Your task to perform on an android device: turn on airplane mode Image 0: 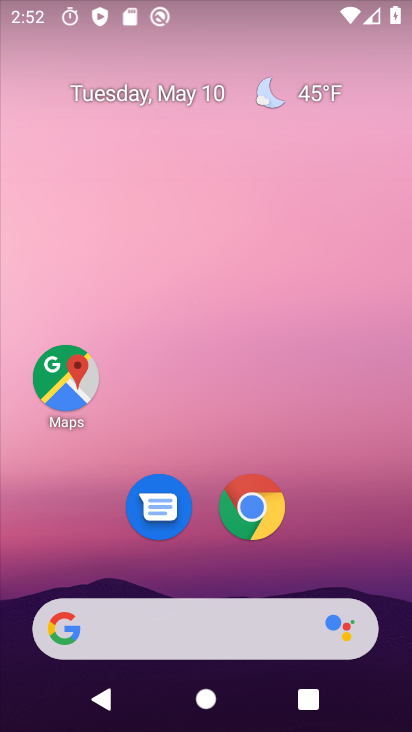
Step 0: drag from (199, 600) to (199, 218)
Your task to perform on an android device: turn on airplane mode Image 1: 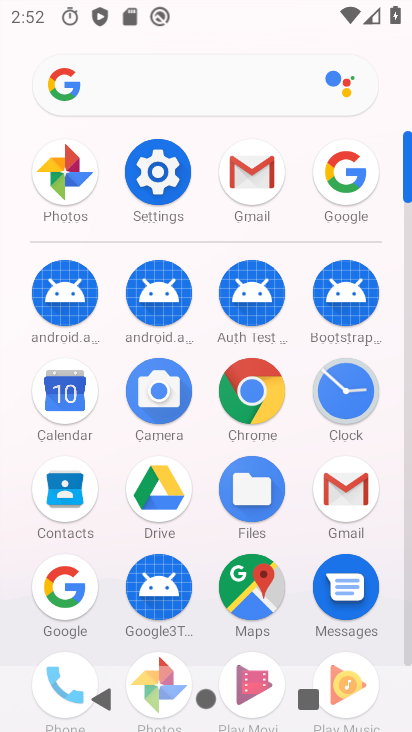
Step 1: click (159, 178)
Your task to perform on an android device: turn on airplane mode Image 2: 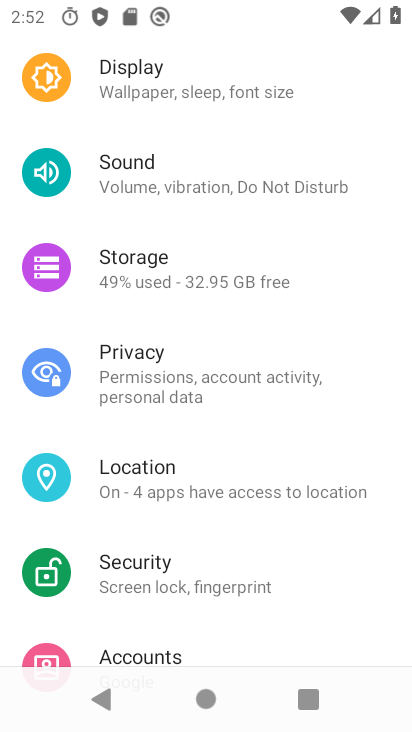
Step 2: drag from (159, 54) to (161, 433)
Your task to perform on an android device: turn on airplane mode Image 3: 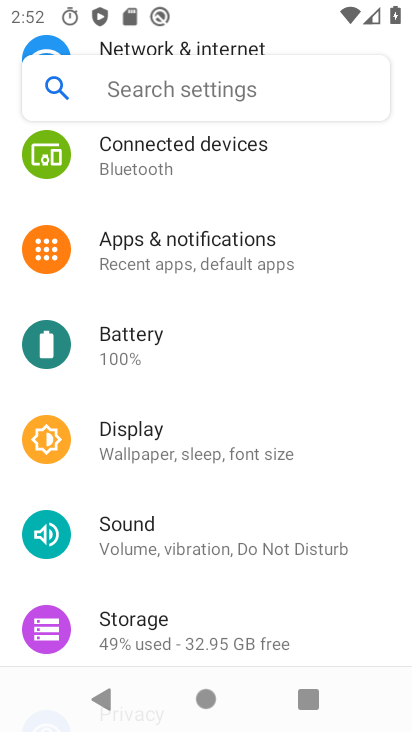
Step 3: drag from (168, 190) to (162, 502)
Your task to perform on an android device: turn on airplane mode Image 4: 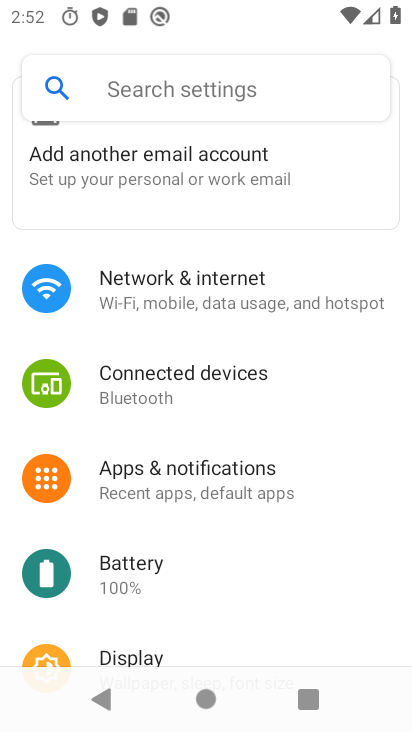
Step 4: click (174, 295)
Your task to perform on an android device: turn on airplane mode Image 5: 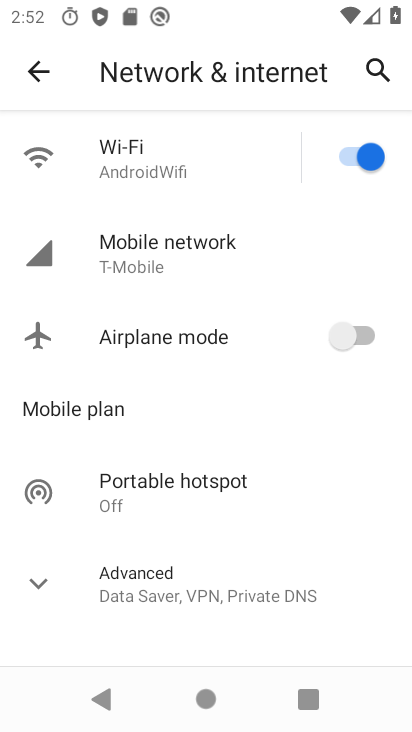
Step 5: click (358, 334)
Your task to perform on an android device: turn on airplane mode Image 6: 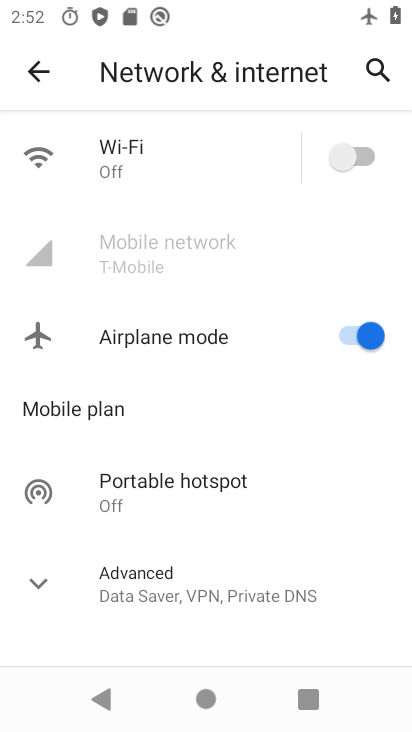
Step 6: task complete